Your task to perform on an android device: Open the stopwatch Image 0: 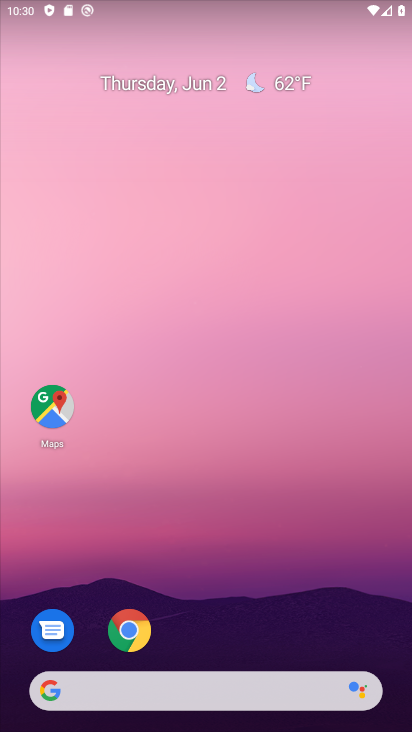
Step 0: press home button
Your task to perform on an android device: Open the stopwatch Image 1: 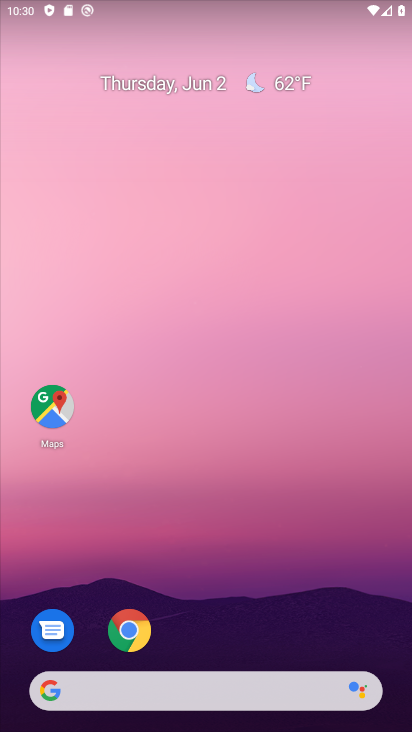
Step 1: drag from (147, 696) to (303, 154)
Your task to perform on an android device: Open the stopwatch Image 2: 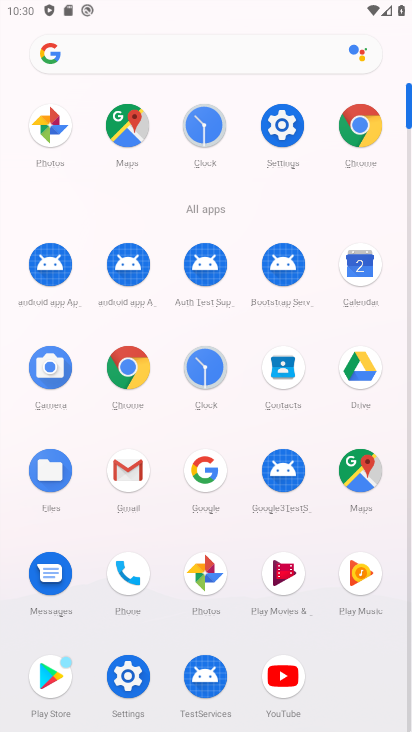
Step 2: click (193, 131)
Your task to perform on an android device: Open the stopwatch Image 3: 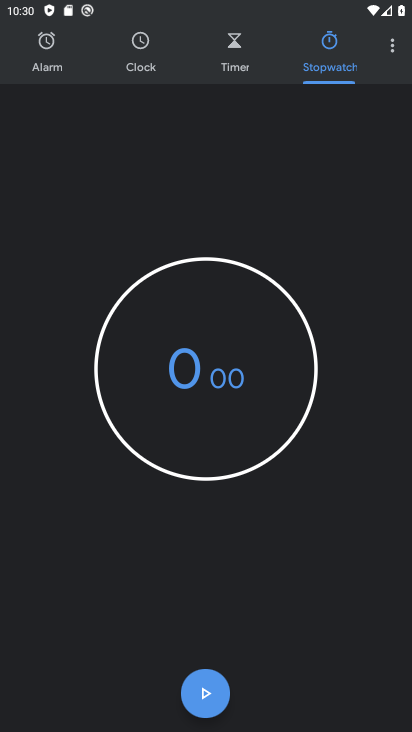
Step 3: task complete